Your task to perform on an android device: Play the last video I watched on Youtube Image 0: 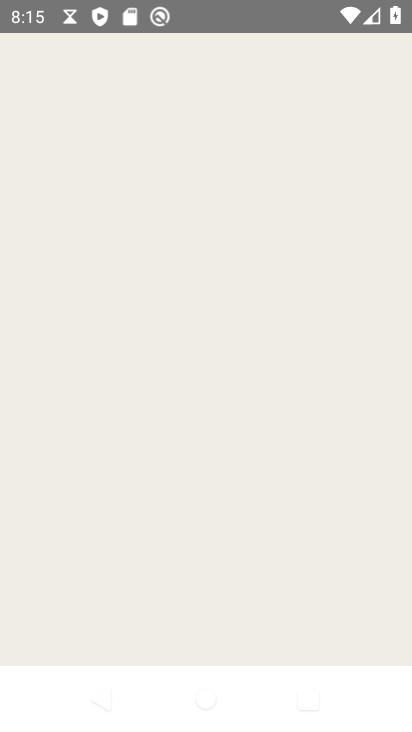
Step 0: click (246, 509)
Your task to perform on an android device: Play the last video I watched on Youtube Image 1: 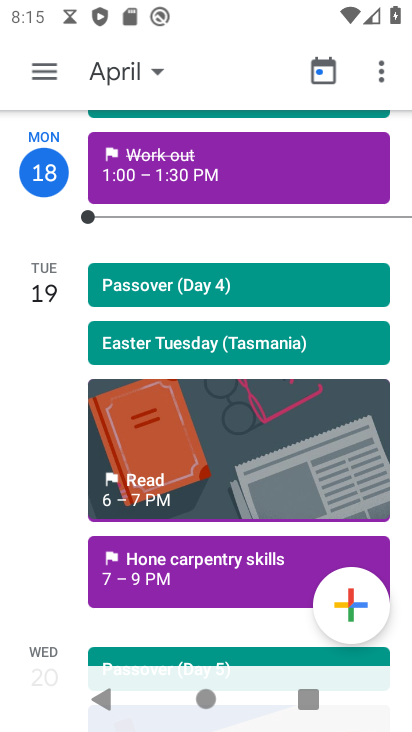
Step 1: press back button
Your task to perform on an android device: Play the last video I watched on Youtube Image 2: 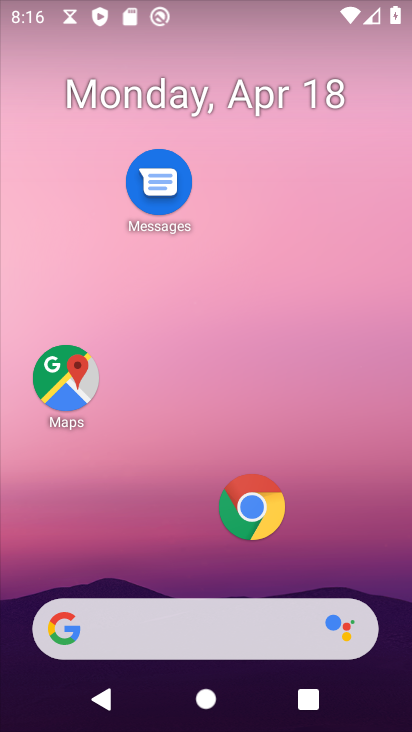
Step 2: drag from (242, 573) to (266, 226)
Your task to perform on an android device: Play the last video I watched on Youtube Image 3: 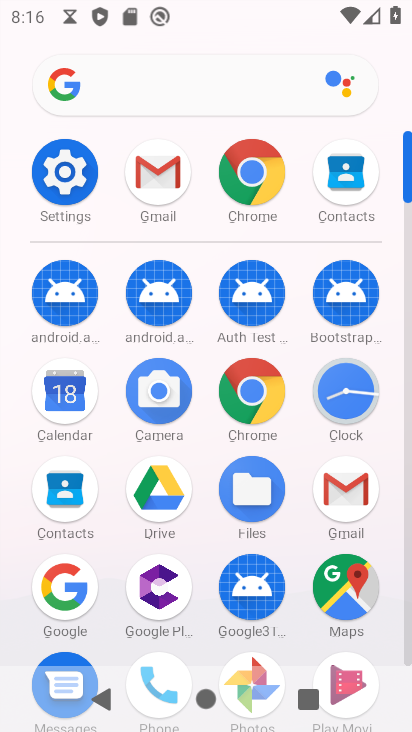
Step 3: drag from (208, 581) to (235, 245)
Your task to perform on an android device: Play the last video I watched on Youtube Image 4: 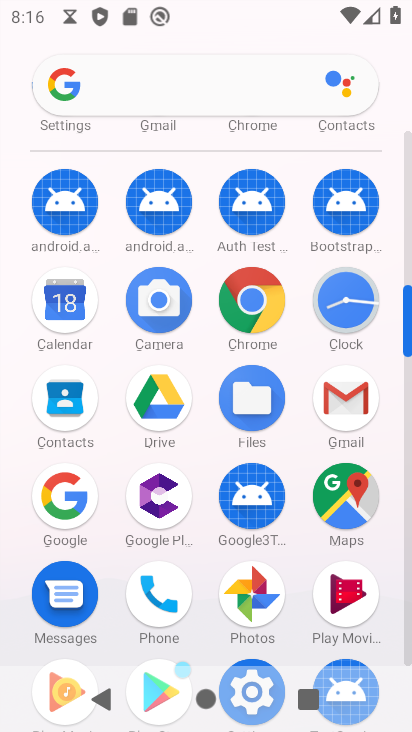
Step 4: drag from (199, 601) to (199, 188)
Your task to perform on an android device: Play the last video I watched on Youtube Image 5: 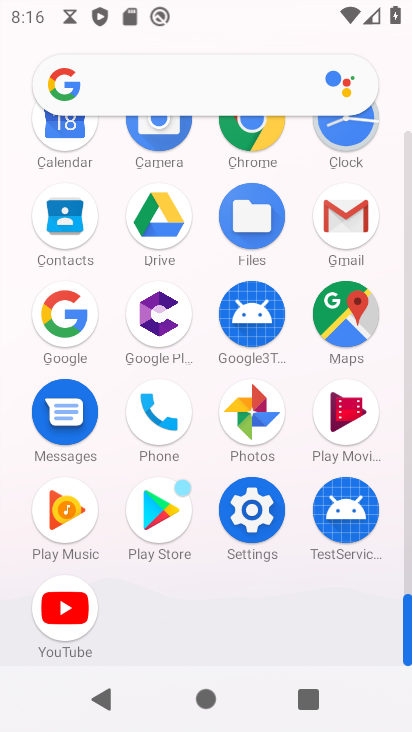
Step 5: click (55, 600)
Your task to perform on an android device: Play the last video I watched on Youtube Image 6: 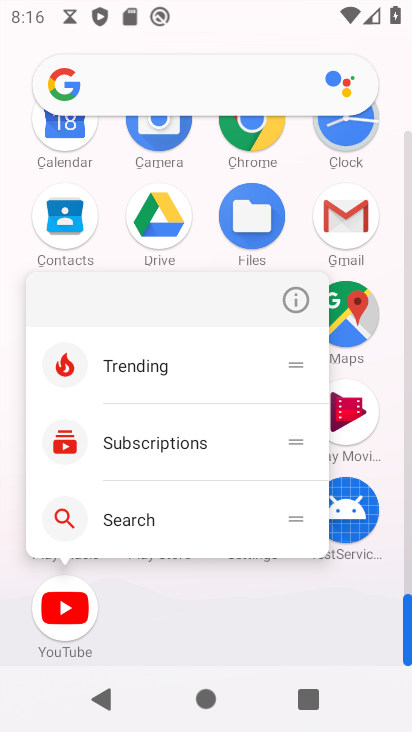
Step 6: click (62, 615)
Your task to perform on an android device: Play the last video I watched on Youtube Image 7: 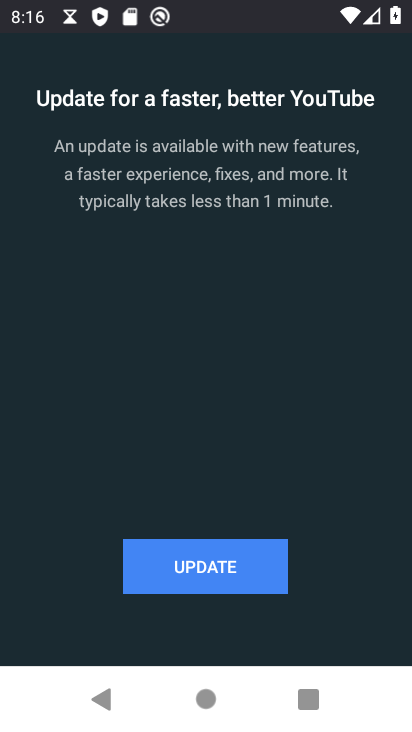
Step 7: click (227, 566)
Your task to perform on an android device: Play the last video I watched on Youtube Image 8: 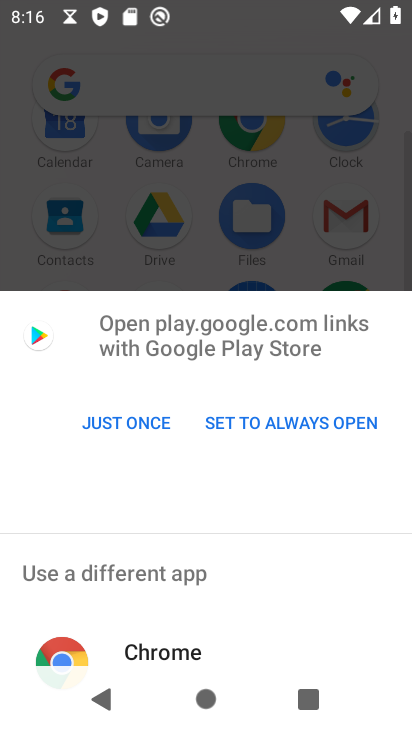
Step 8: click (128, 419)
Your task to perform on an android device: Play the last video I watched on Youtube Image 9: 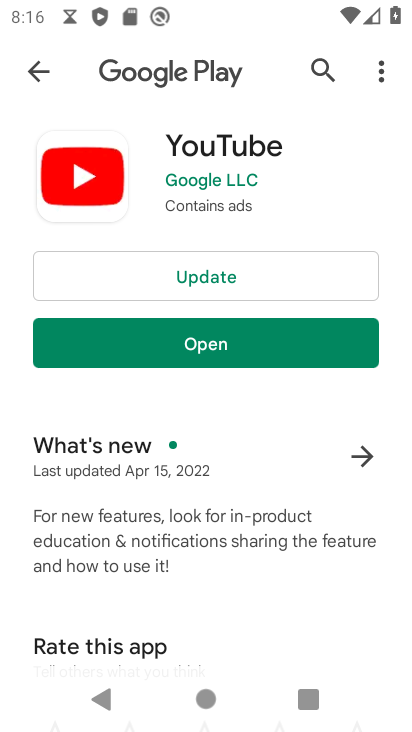
Step 9: click (226, 278)
Your task to perform on an android device: Play the last video I watched on Youtube Image 10: 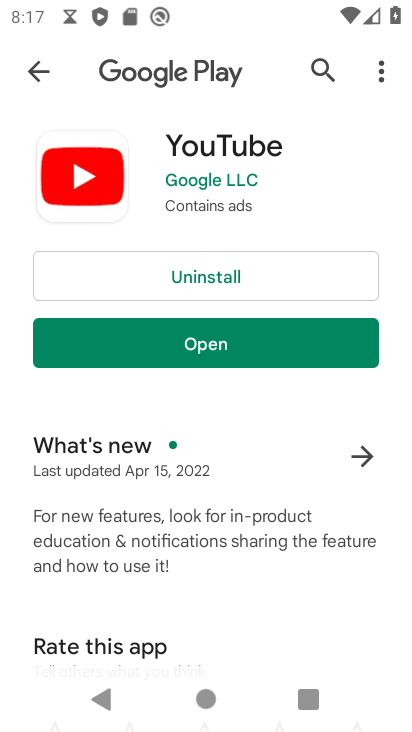
Step 10: click (279, 296)
Your task to perform on an android device: Play the last video I watched on Youtube Image 11: 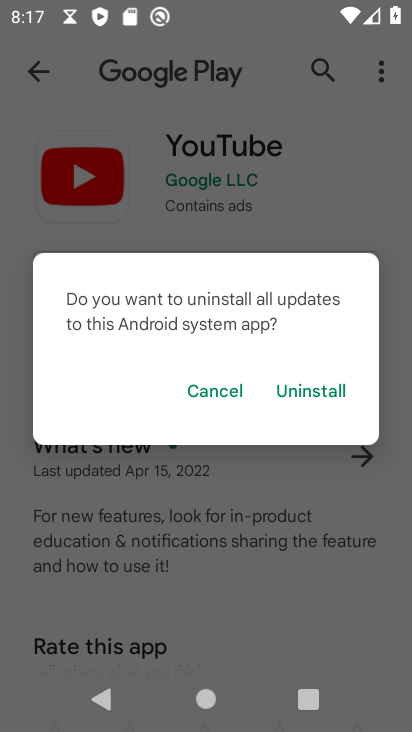
Step 11: click (241, 348)
Your task to perform on an android device: Play the last video I watched on Youtube Image 12: 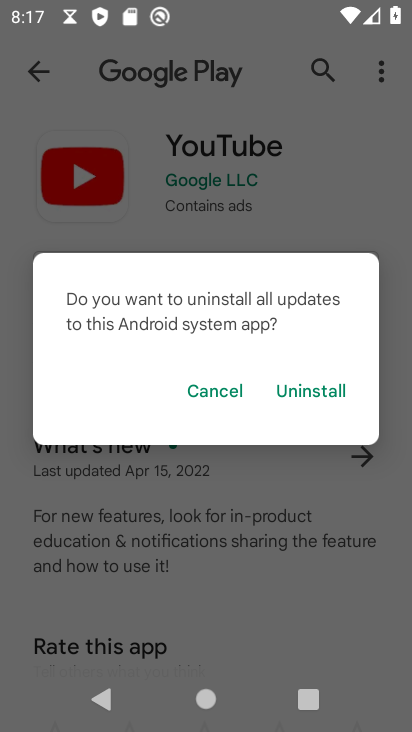
Step 12: click (227, 390)
Your task to perform on an android device: Play the last video I watched on Youtube Image 13: 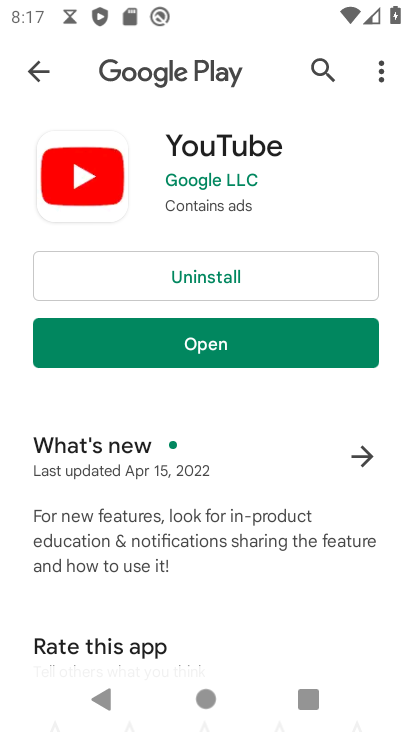
Step 13: click (225, 390)
Your task to perform on an android device: Play the last video I watched on Youtube Image 14: 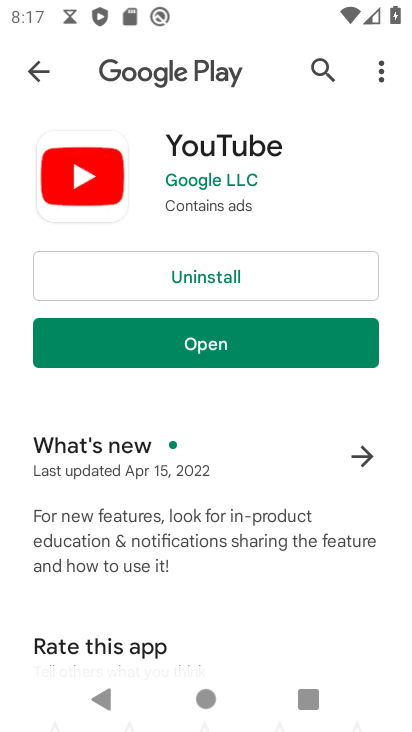
Step 14: click (200, 351)
Your task to perform on an android device: Play the last video I watched on Youtube Image 15: 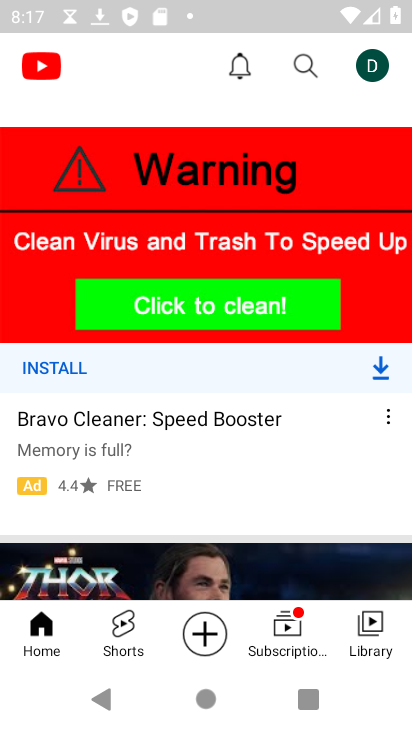
Step 15: click (372, 634)
Your task to perform on an android device: Play the last video I watched on Youtube Image 16: 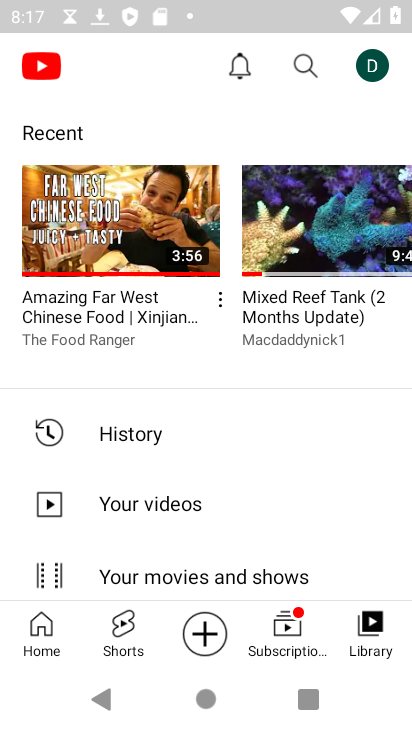
Step 16: click (124, 238)
Your task to perform on an android device: Play the last video I watched on Youtube Image 17: 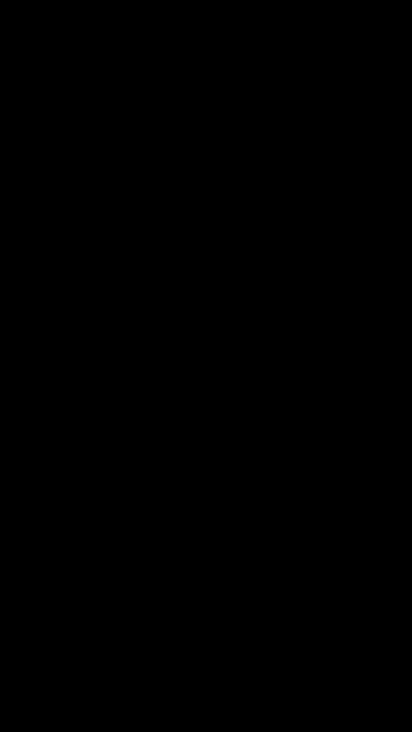
Step 17: task complete